Your task to perform on an android device: What is the news today? Image 0: 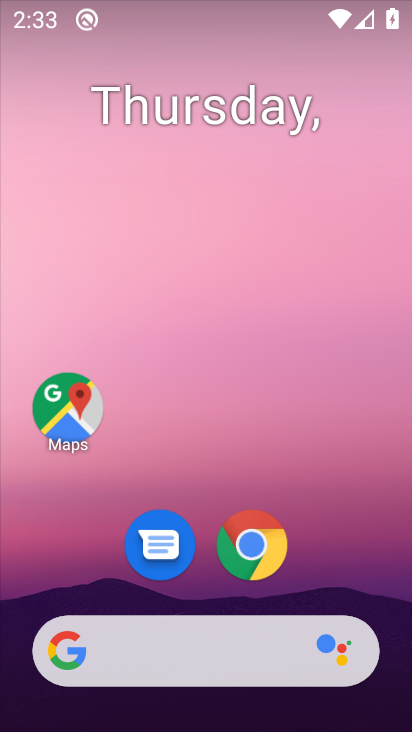
Step 0: drag from (183, 613) to (218, 190)
Your task to perform on an android device: What is the news today? Image 1: 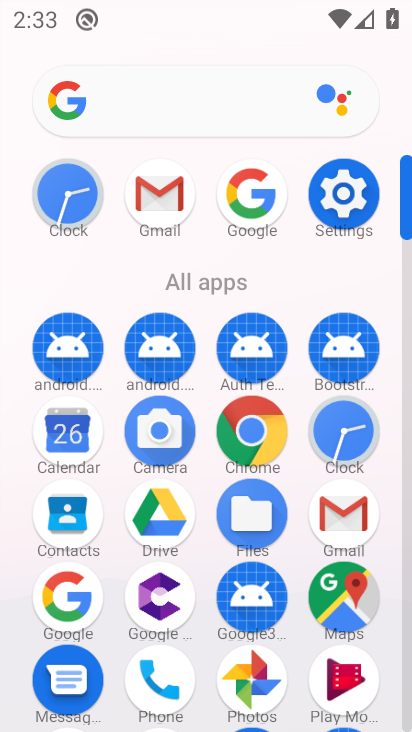
Step 1: click (63, 602)
Your task to perform on an android device: What is the news today? Image 2: 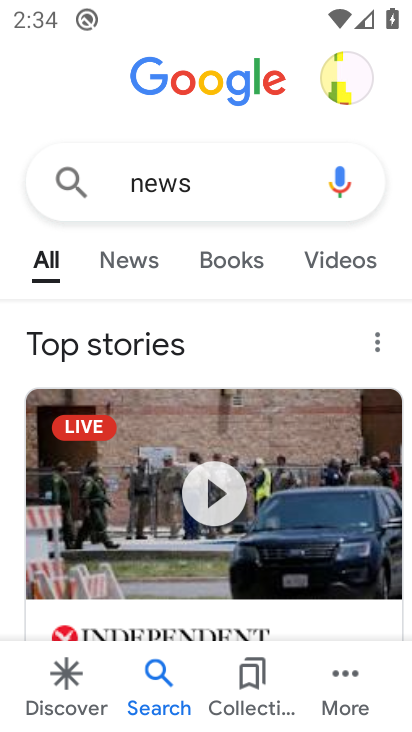
Step 2: task complete